Your task to perform on an android device: open wifi settings Image 0: 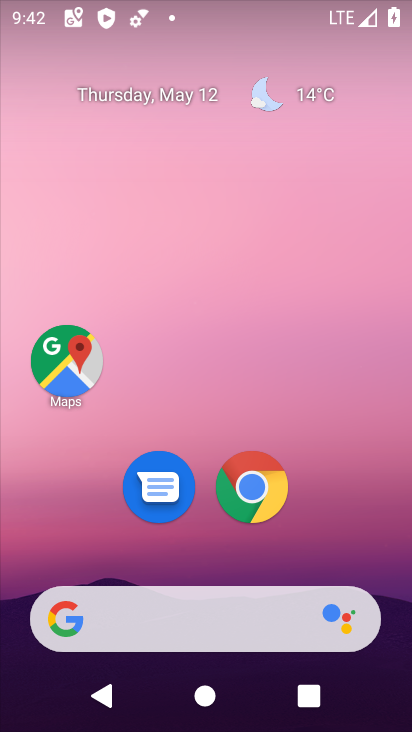
Step 0: drag from (211, 23) to (175, 449)
Your task to perform on an android device: open wifi settings Image 1: 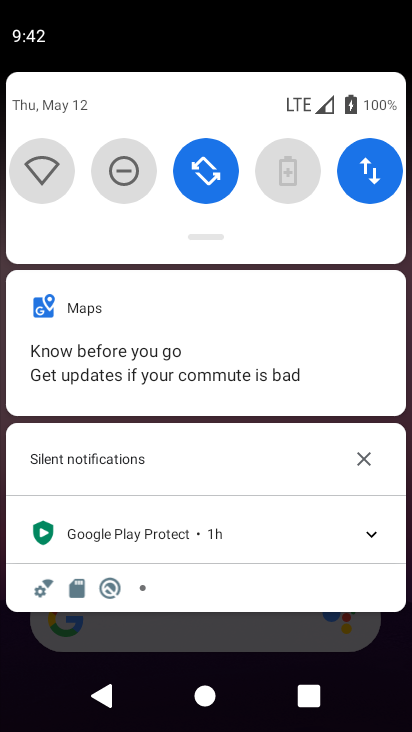
Step 1: click (49, 181)
Your task to perform on an android device: open wifi settings Image 2: 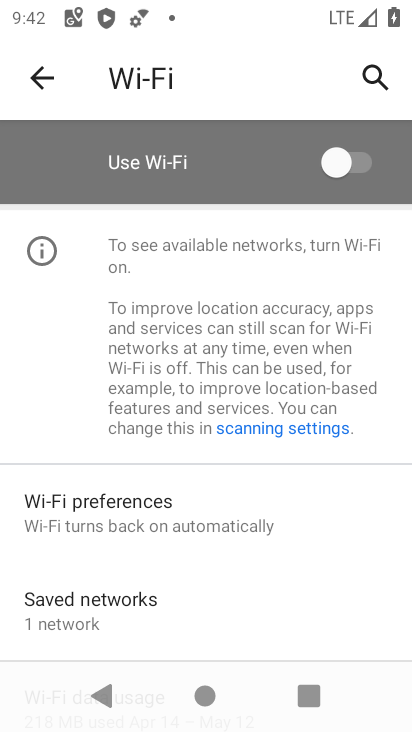
Step 2: drag from (199, 549) to (407, 172)
Your task to perform on an android device: open wifi settings Image 3: 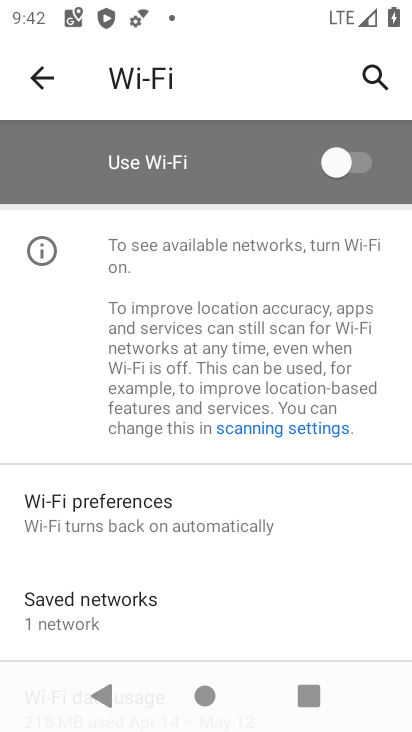
Step 3: drag from (169, 571) to (280, 301)
Your task to perform on an android device: open wifi settings Image 4: 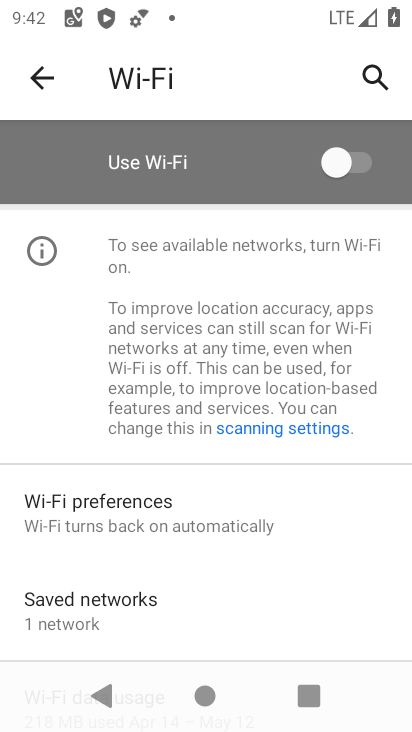
Step 4: click (339, 169)
Your task to perform on an android device: open wifi settings Image 5: 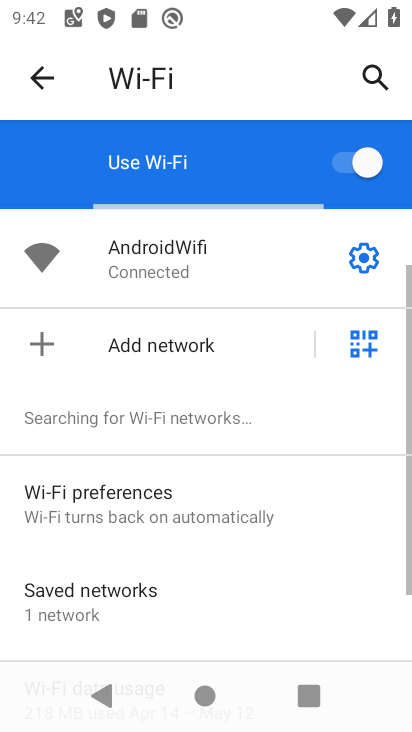
Step 5: click (349, 252)
Your task to perform on an android device: open wifi settings Image 6: 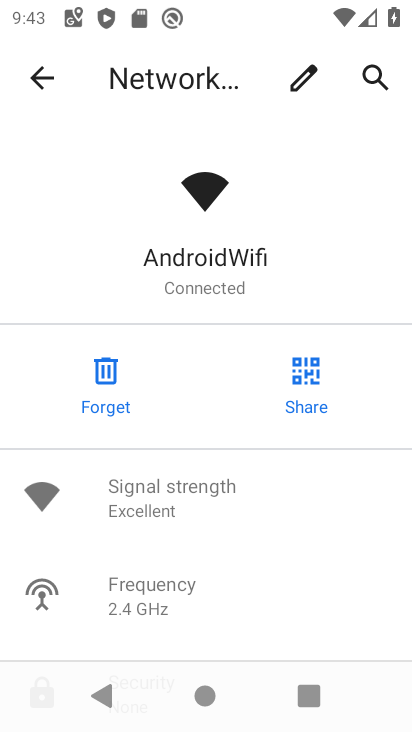
Step 6: task complete